Your task to perform on an android device: Go to display settings Image 0: 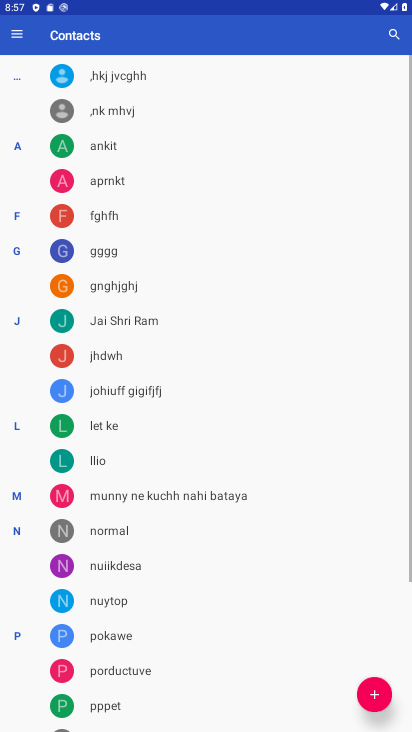
Step 0: press home button
Your task to perform on an android device: Go to display settings Image 1: 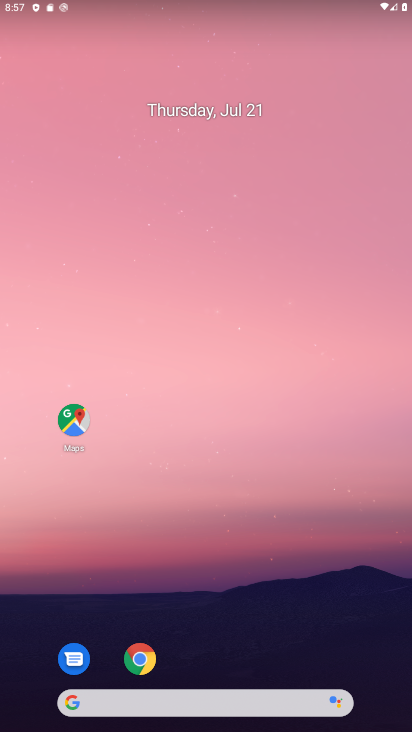
Step 1: drag from (266, 664) to (189, 16)
Your task to perform on an android device: Go to display settings Image 2: 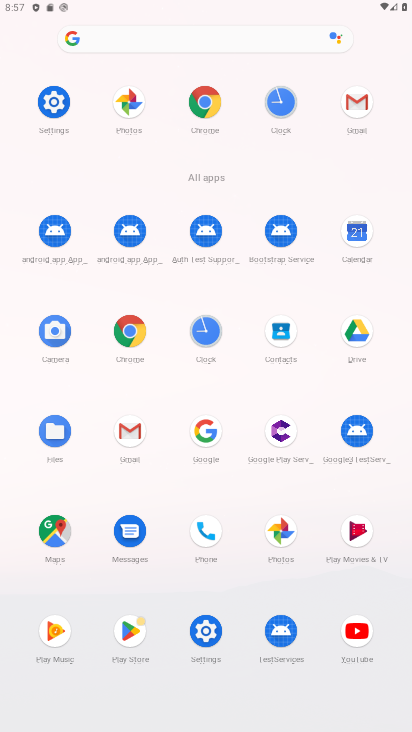
Step 2: click (60, 102)
Your task to perform on an android device: Go to display settings Image 3: 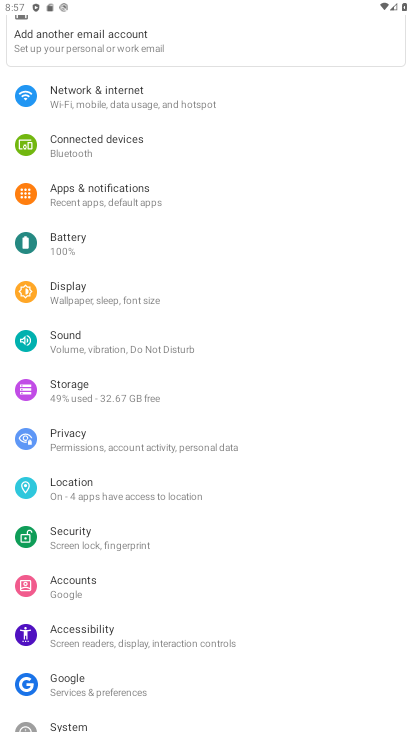
Step 3: click (63, 292)
Your task to perform on an android device: Go to display settings Image 4: 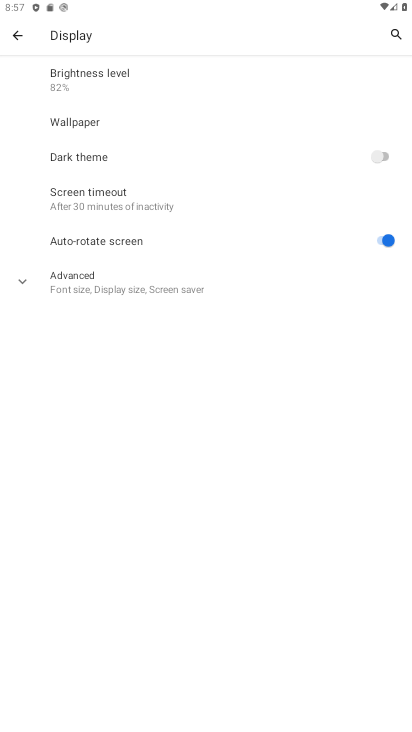
Step 4: click (94, 290)
Your task to perform on an android device: Go to display settings Image 5: 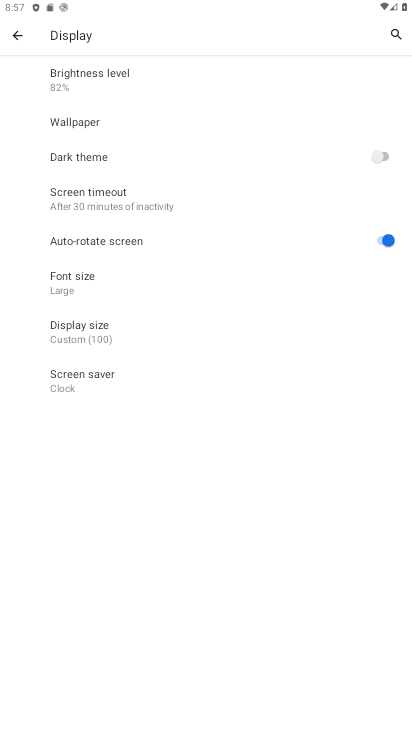
Step 5: task complete